Your task to perform on an android device: Go to settings Image 0: 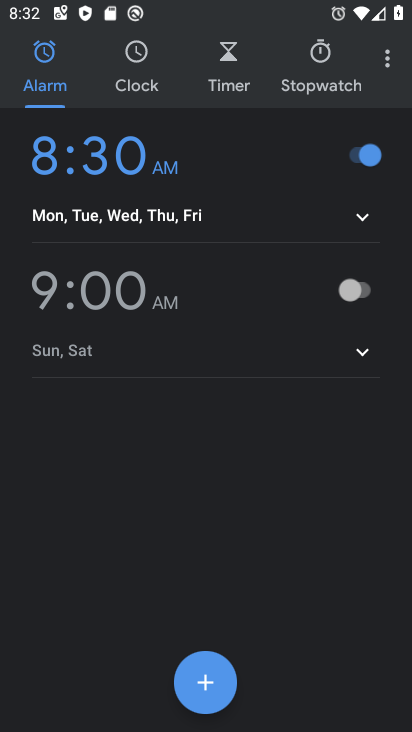
Step 0: press back button
Your task to perform on an android device: Go to settings Image 1: 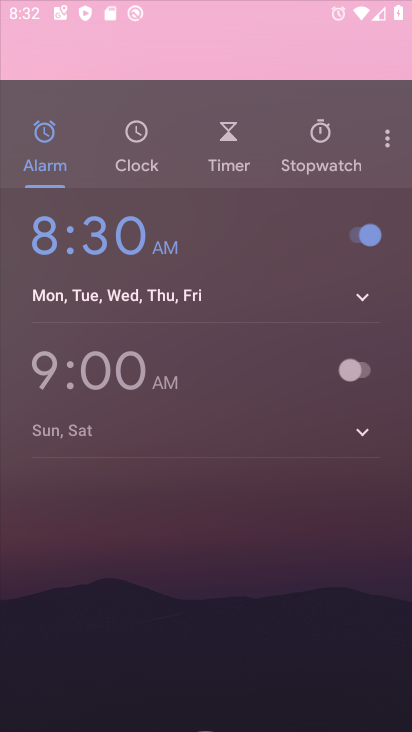
Step 1: press home button
Your task to perform on an android device: Go to settings Image 2: 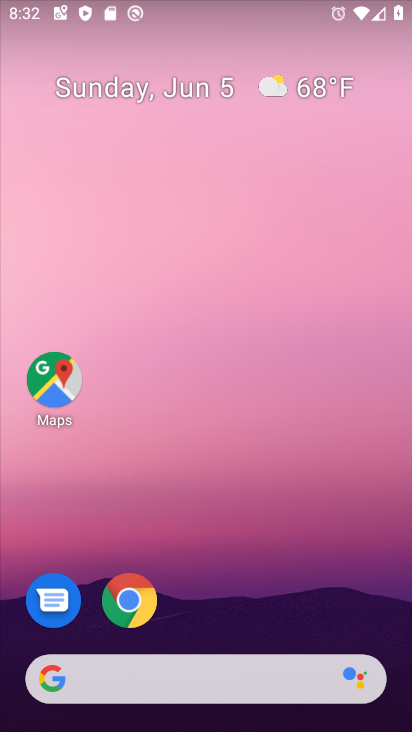
Step 2: drag from (382, 636) to (199, 110)
Your task to perform on an android device: Go to settings Image 3: 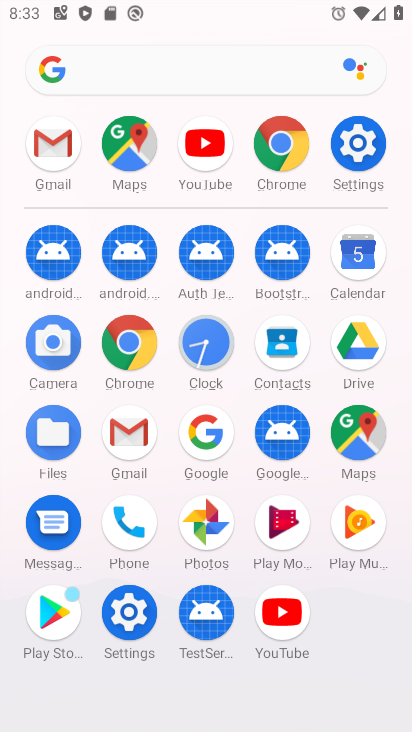
Step 3: click (354, 139)
Your task to perform on an android device: Go to settings Image 4: 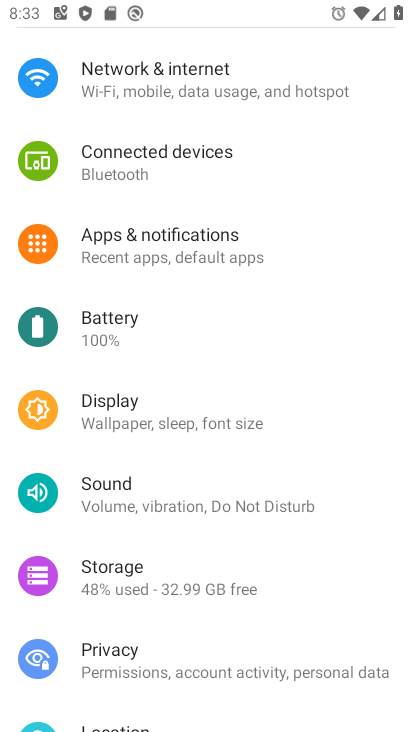
Step 4: task complete